Your task to perform on an android device: Open network settings Image 0: 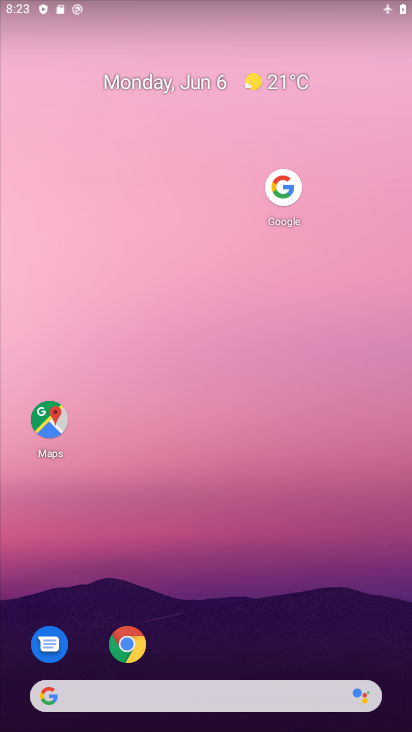
Step 0: drag from (197, 663) to (94, 89)
Your task to perform on an android device: Open network settings Image 1: 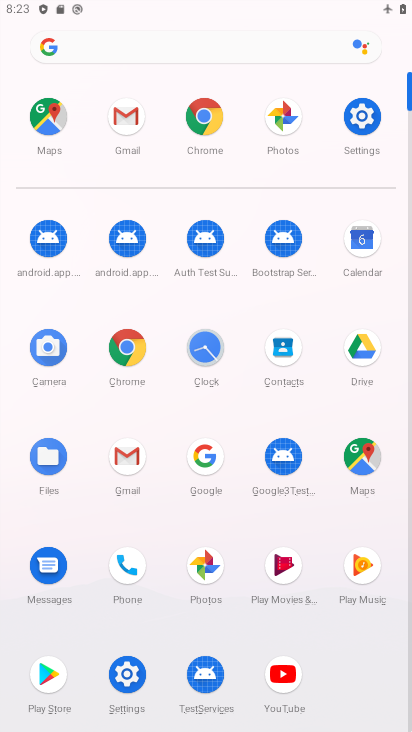
Step 1: click (369, 140)
Your task to perform on an android device: Open network settings Image 2: 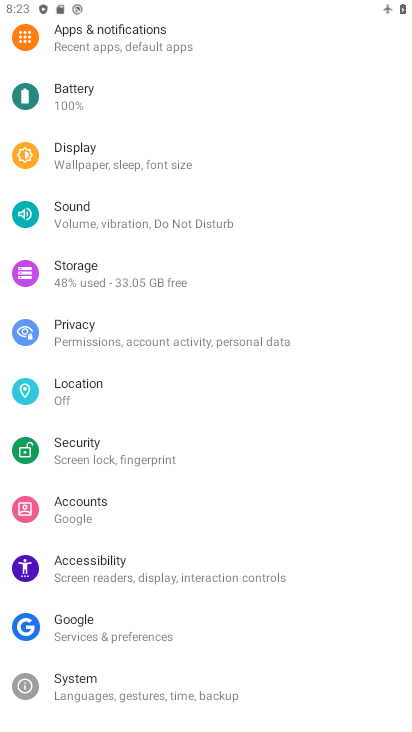
Step 2: drag from (164, 90) to (118, 612)
Your task to perform on an android device: Open network settings Image 3: 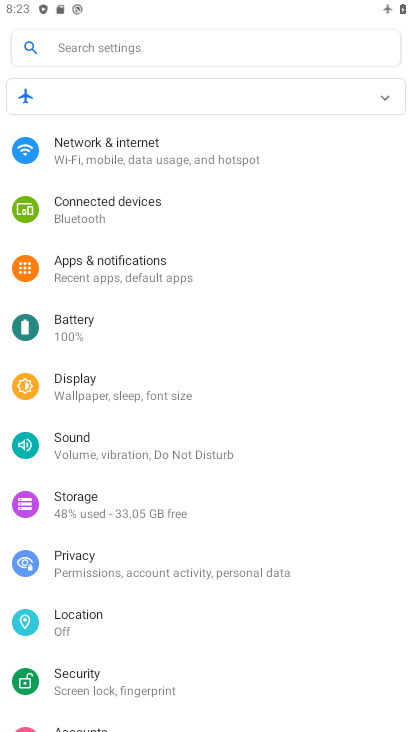
Step 3: click (108, 148)
Your task to perform on an android device: Open network settings Image 4: 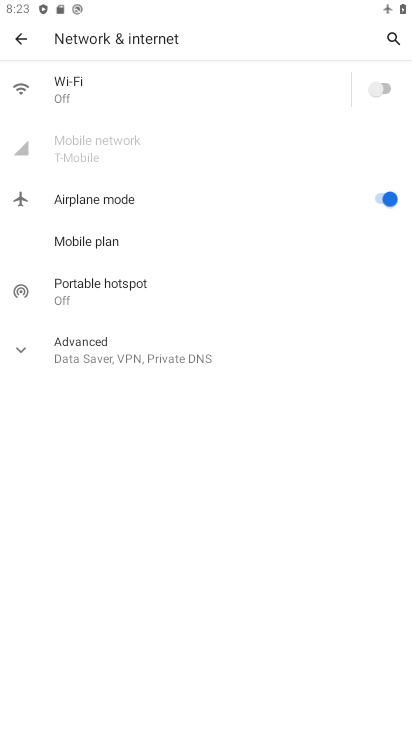
Step 4: task complete